Your task to perform on an android device: open app "Etsy: Buy & Sell Unique Items" (install if not already installed) Image 0: 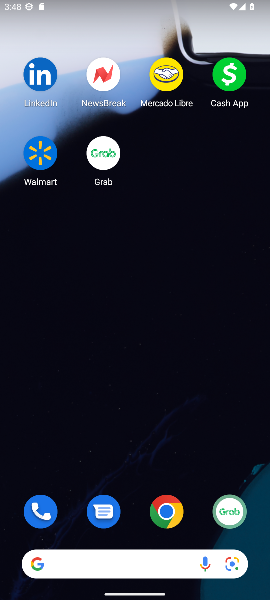
Step 0: drag from (131, 565) to (87, 190)
Your task to perform on an android device: open app "Etsy: Buy & Sell Unique Items" (install if not already installed) Image 1: 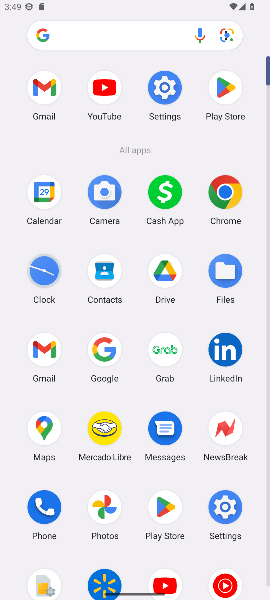
Step 1: click (166, 506)
Your task to perform on an android device: open app "Etsy: Buy & Sell Unique Items" (install if not already installed) Image 2: 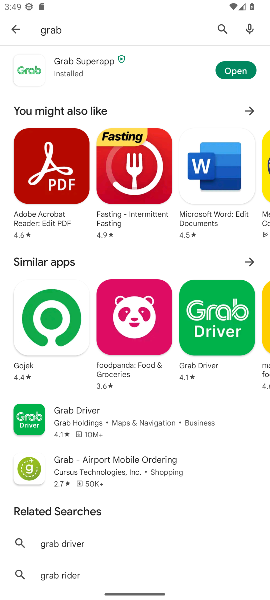
Step 2: click (9, 29)
Your task to perform on an android device: open app "Etsy: Buy & Sell Unique Items" (install if not already installed) Image 3: 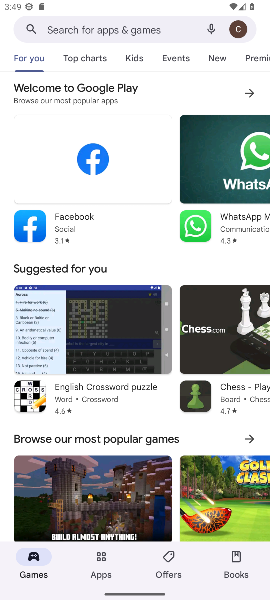
Step 3: type "Etsy: Buy & Sell Unique Items"
Your task to perform on an android device: open app "Etsy: Buy & Sell Unique Items" (install if not already installed) Image 4: 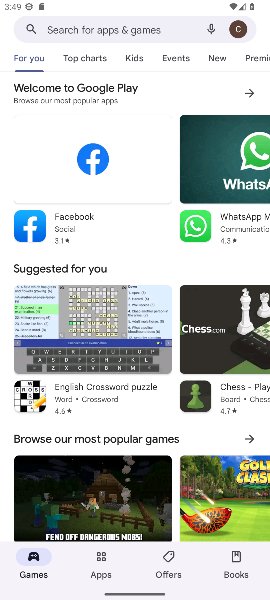
Step 4: click (59, 29)
Your task to perform on an android device: open app "Etsy: Buy & Sell Unique Items" (install if not already installed) Image 5: 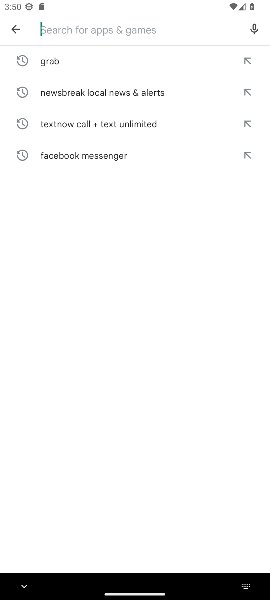
Step 5: type "Etsy: Buy & Sell Unique Item"
Your task to perform on an android device: open app "Etsy: Buy & Sell Unique Items" (install if not already installed) Image 6: 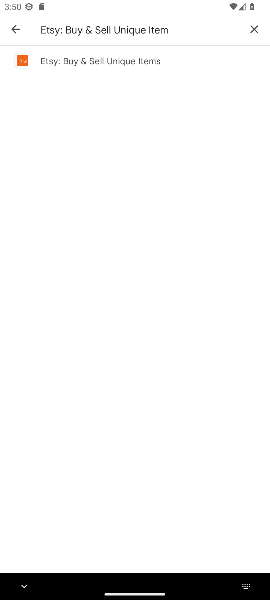
Step 6: click (133, 57)
Your task to perform on an android device: open app "Etsy: Buy & Sell Unique Items" (install if not already installed) Image 7: 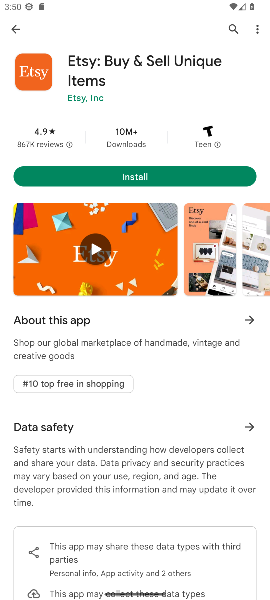
Step 7: click (135, 178)
Your task to perform on an android device: open app "Etsy: Buy & Sell Unique Items" (install if not already installed) Image 8: 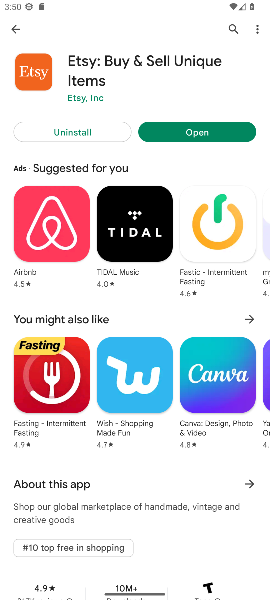
Step 8: click (189, 135)
Your task to perform on an android device: open app "Etsy: Buy & Sell Unique Items" (install if not already installed) Image 9: 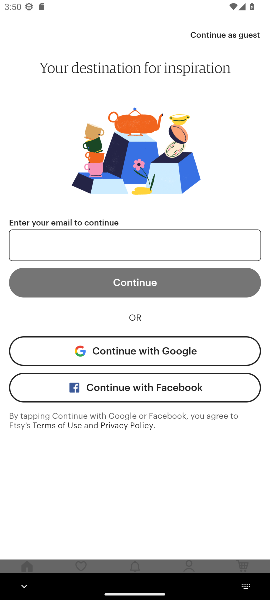
Step 9: task complete